Your task to perform on an android device: Open Maps and search for coffee Image 0: 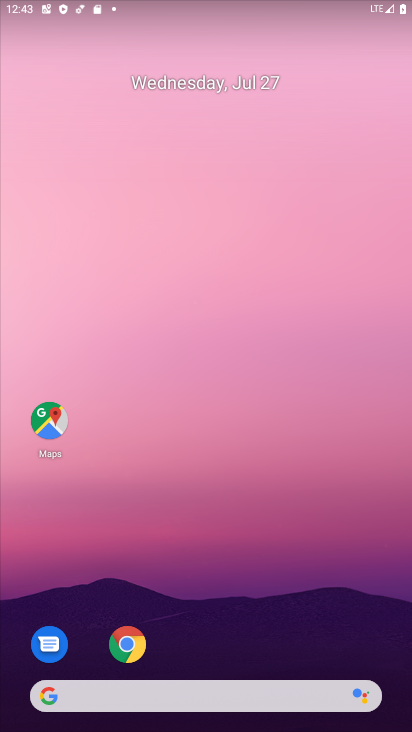
Step 0: click (44, 410)
Your task to perform on an android device: Open Maps and search for coffee Image 1: 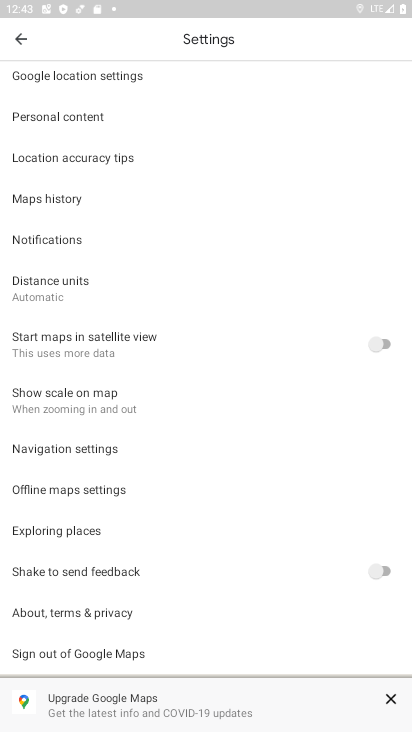
Step 1: click (22, 36)
Your task to perform on an android device: Open Maps and search for coffee Image 2: 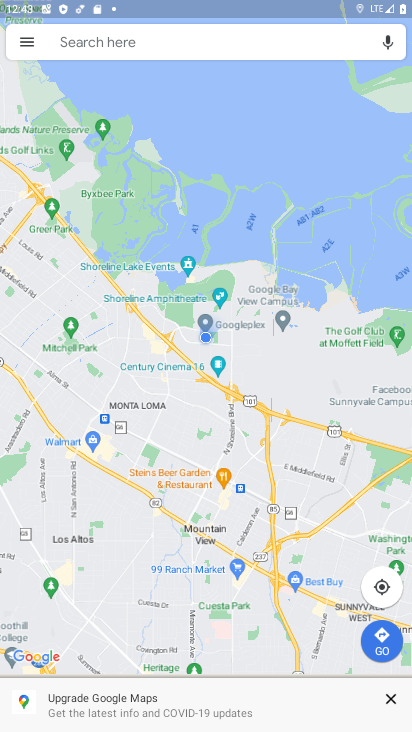
Step 2: click (215, 41)
Your task to perform on an android device: Open Maps and search for coffee Image 3: 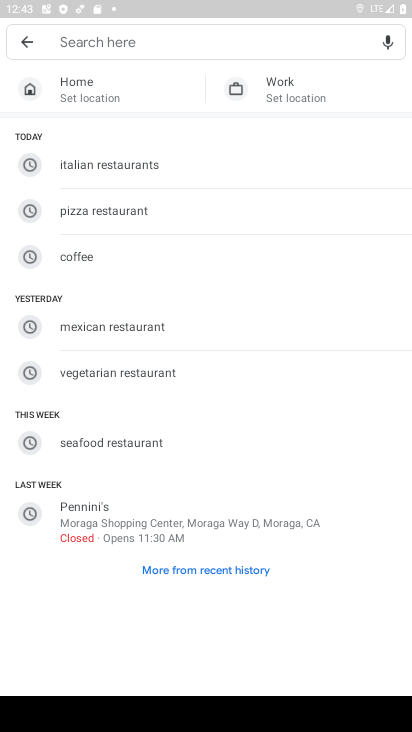
Step 3: type "coffee"
Your task to perform on an android device: Open Maps and search for coffee Image 4: 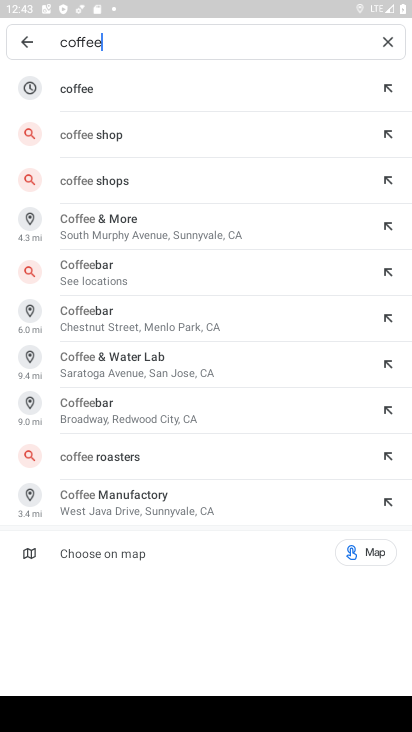
Step 4: click (80, 84)
Your task to perform on an android device: Open Maps and search for coffee Image 5: 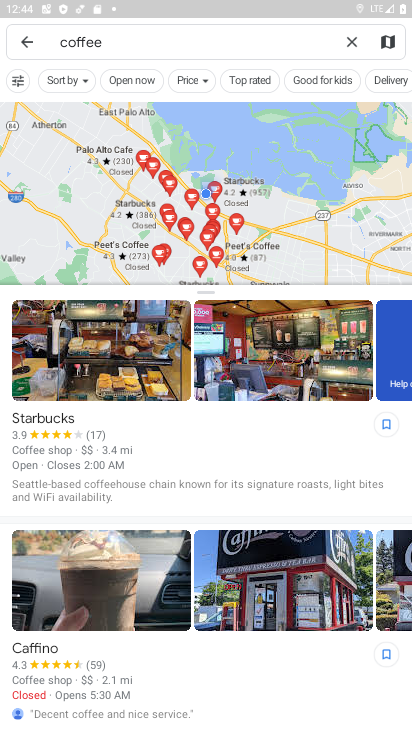
Step 5: task complete